Your task to perform on an android device: Google the capital of Brazil Image 0: 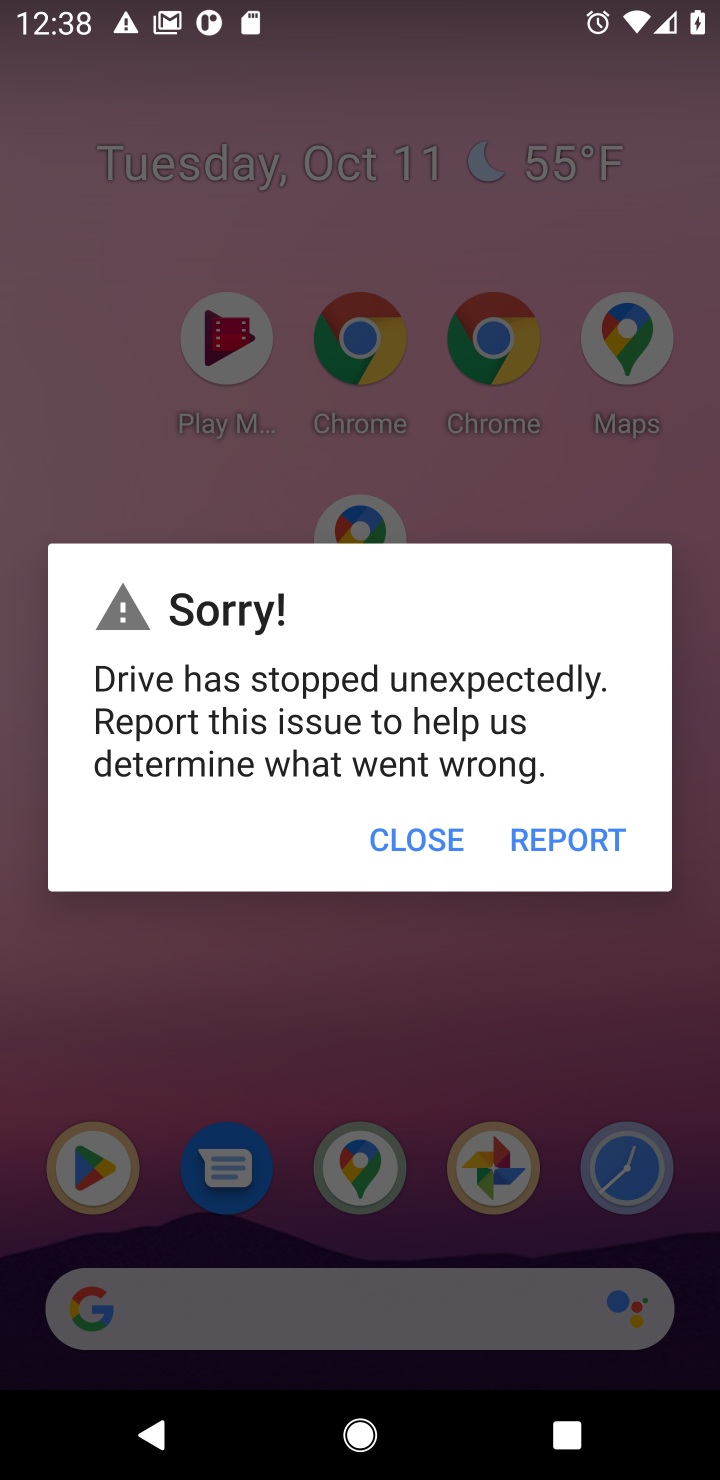
Step 0: press home button
Your task to perform on an android device: Google the capital of Brazil Image 1: 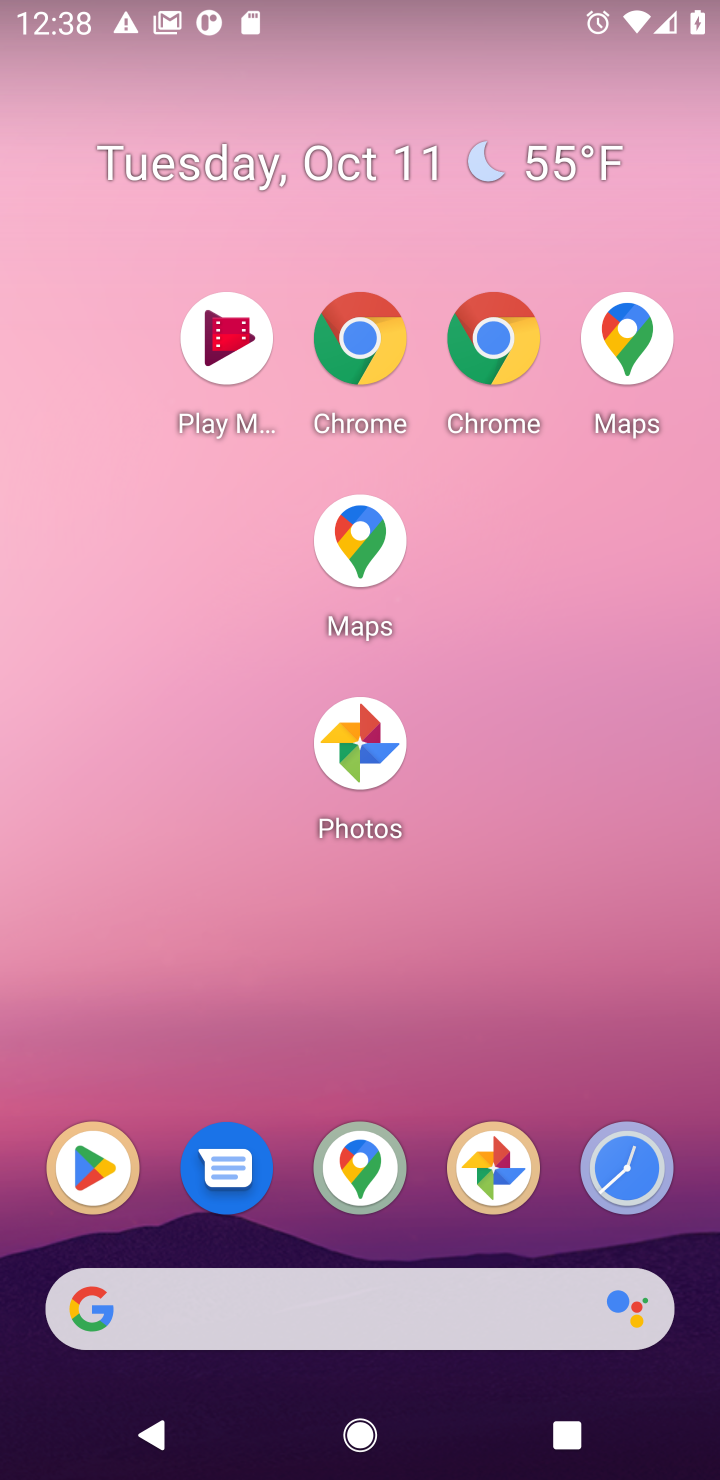
Step 1: drag from (470, 718) to (457, 154)
Your task to perform on an android device: Google the capital of Brazil Image 2: 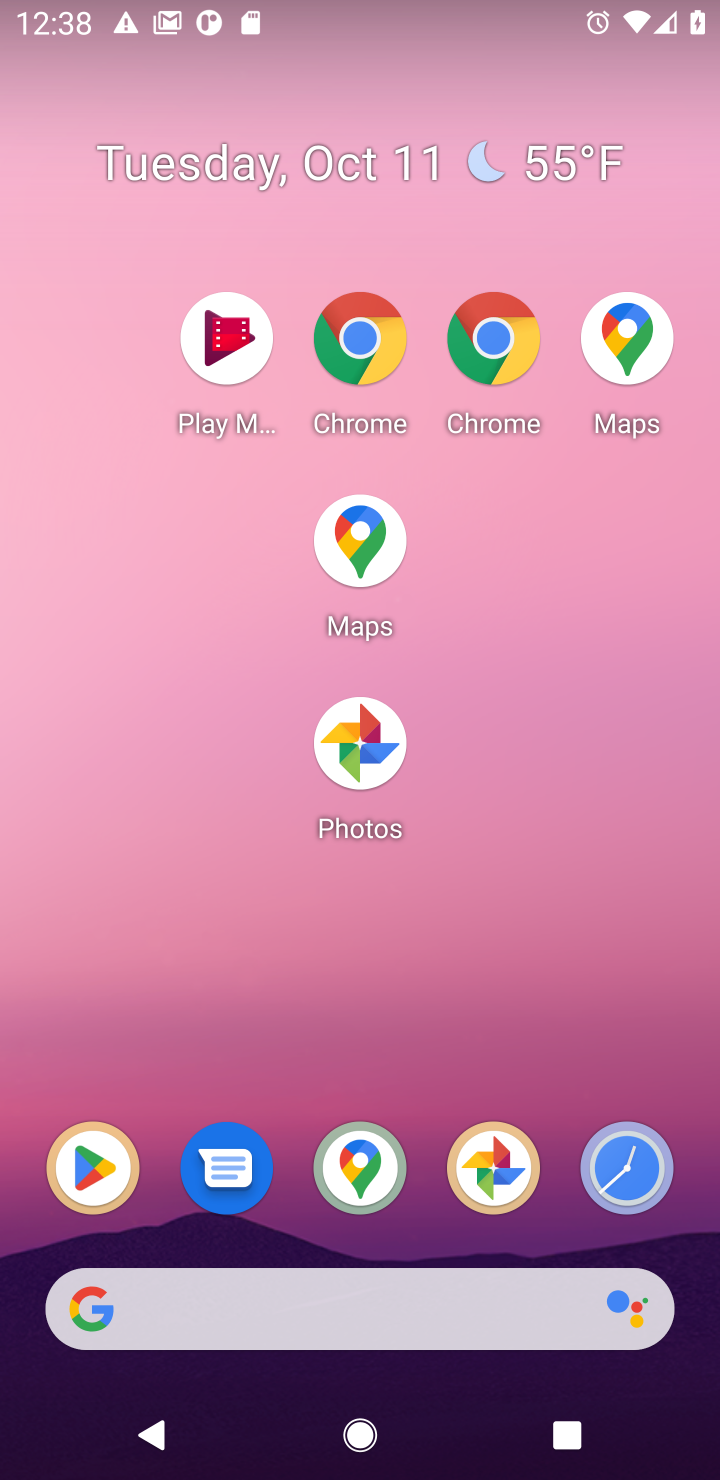
Step 2: drag from (397, 710) to (419, 80)
Your task to perform on an android device: Google the capital of Brazil Image 3: 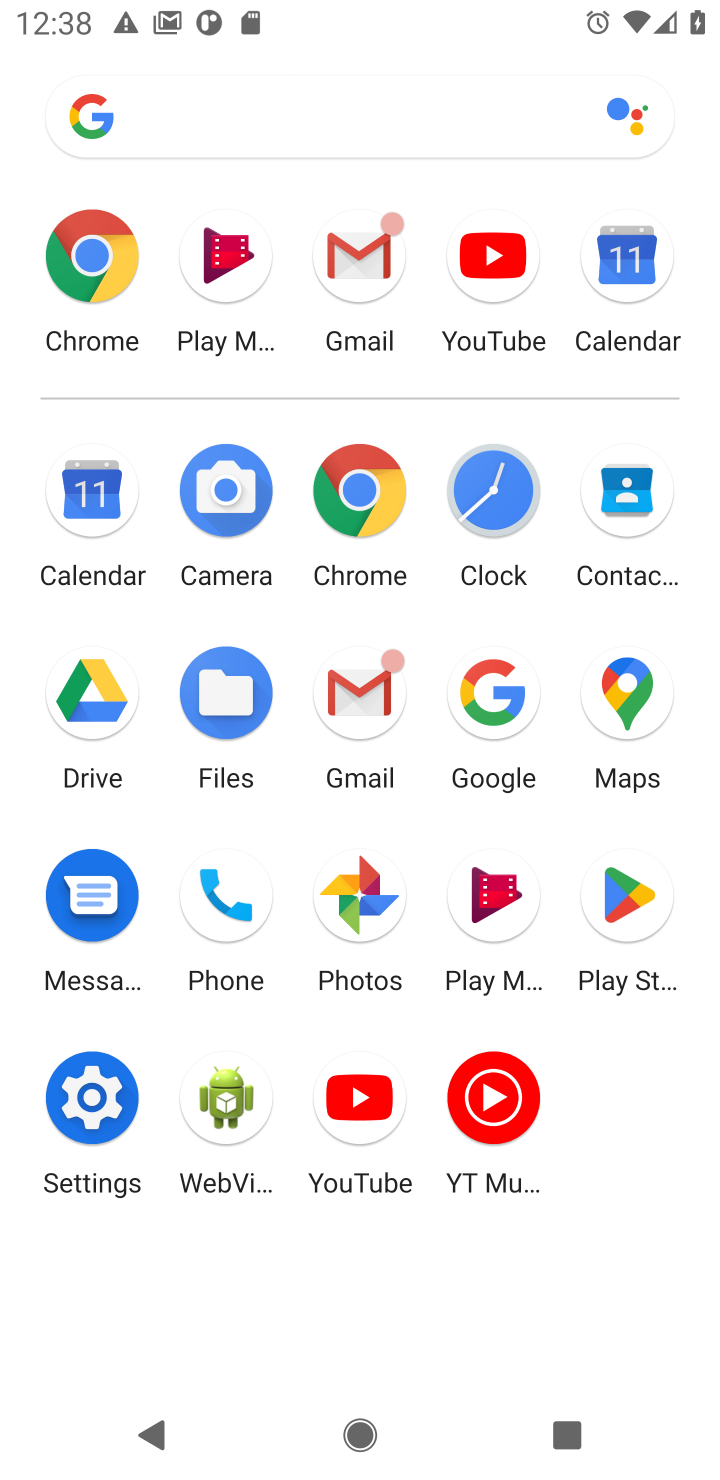
Step 3: click (476, 712)
Your task to perform on an android device: Google the capital of Brazil Image 4: 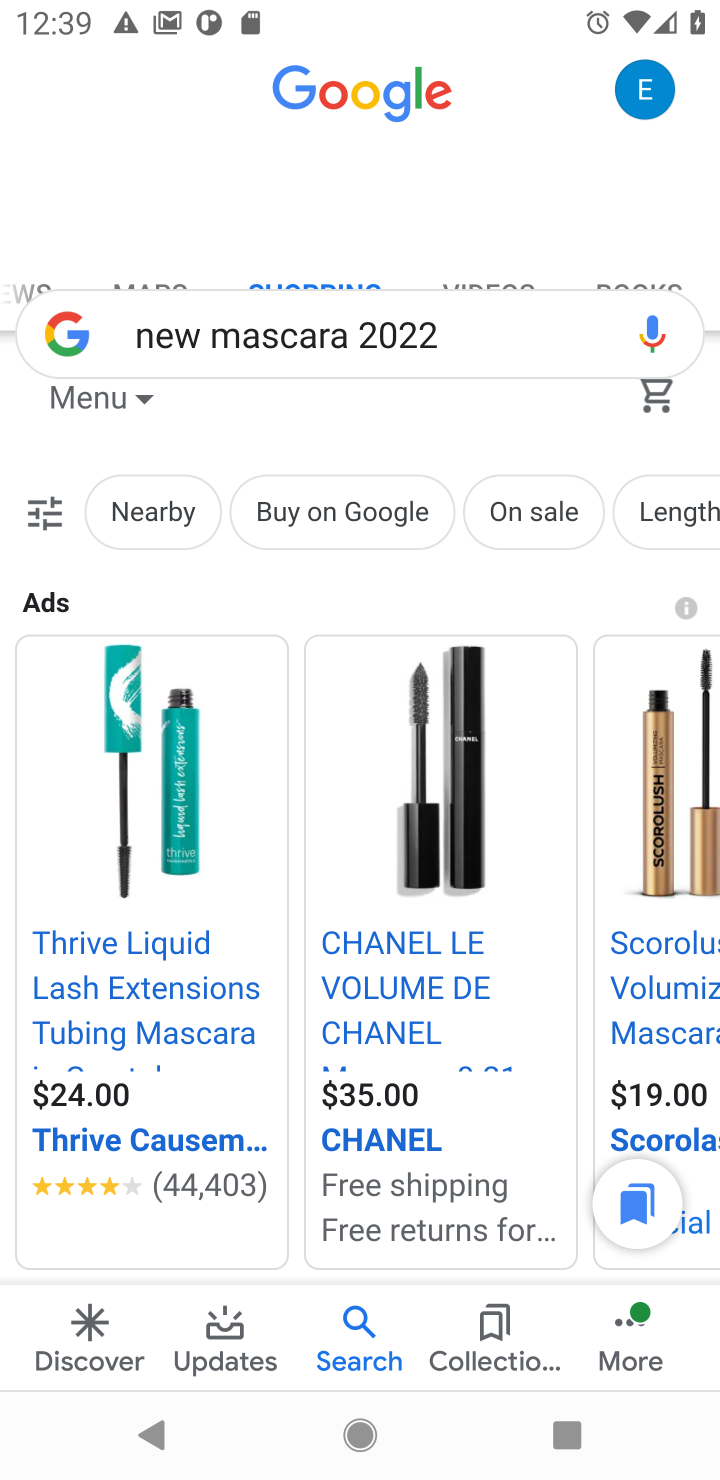
Step 4: click (495, 331)
Your task to perform on an android device: Google the capital of Brazil Image 5: 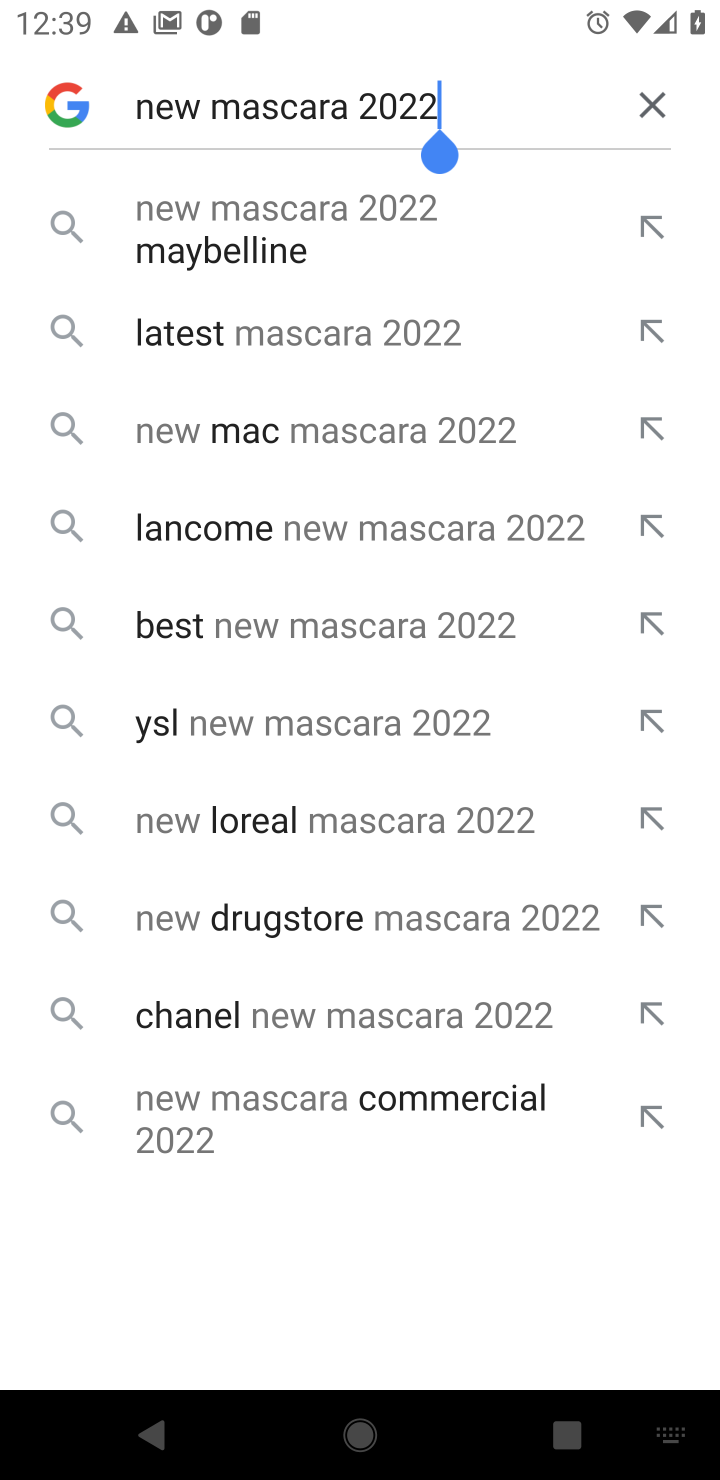
Step 5: click (653, 104)
Your task to perform on an android device: Google the capital of Brazil Image 6: 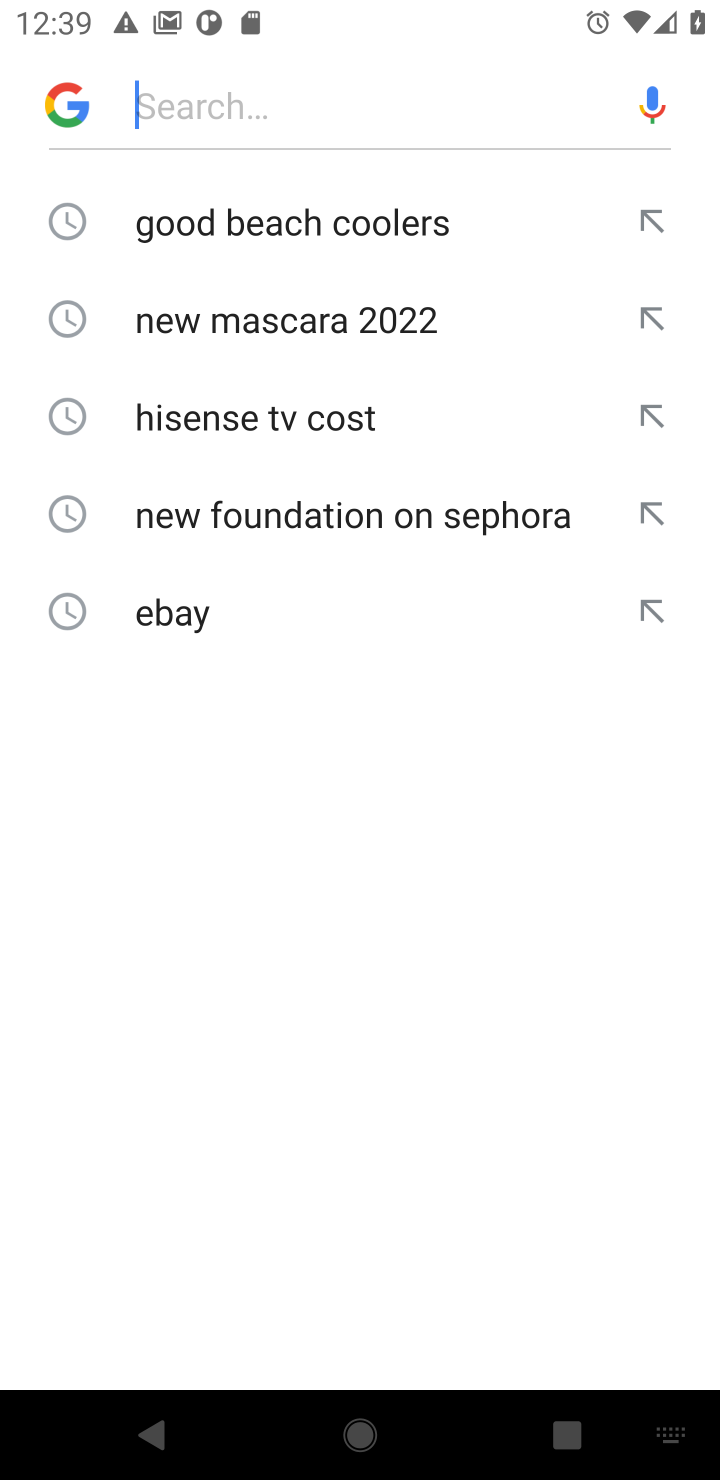
Step 6: type "capital of Brazil"
Your task to perform on an android device: Google the capital of Brazil Image 7: 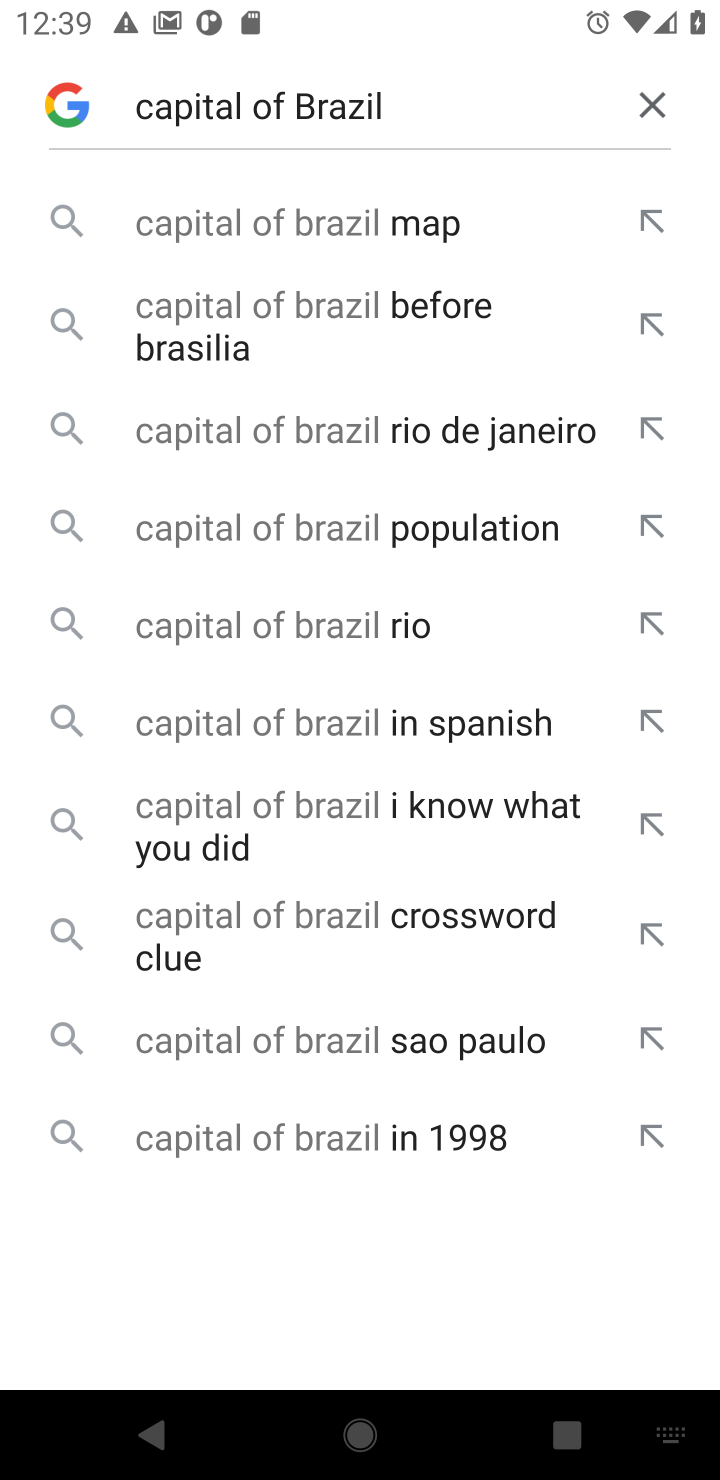
Step 7: click (467, 631)
Your task to perform on an android device: Google the capital of Brazil Image 8: 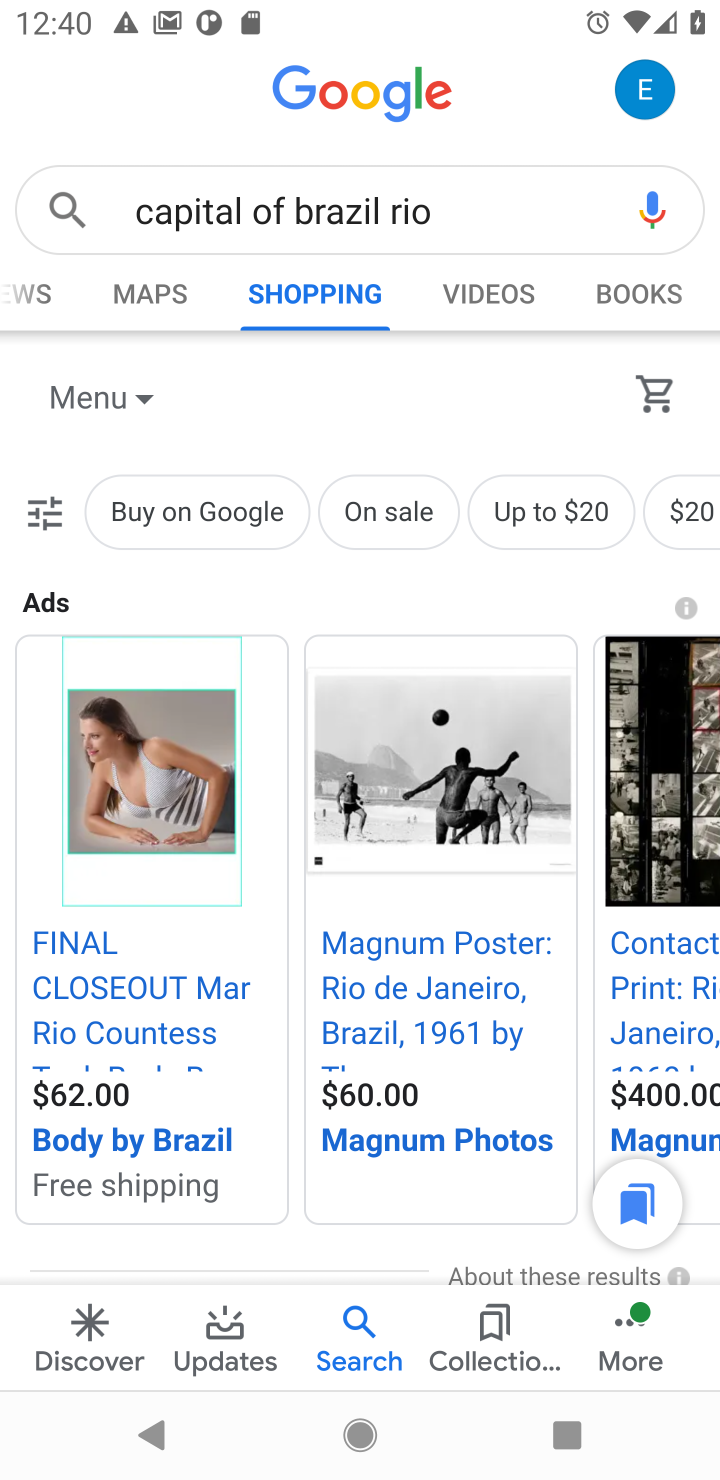
Step 8: drag from (36, 299) to (518, 320)
Your task to perform on an android device: Google the capital of Brazil Image 9: 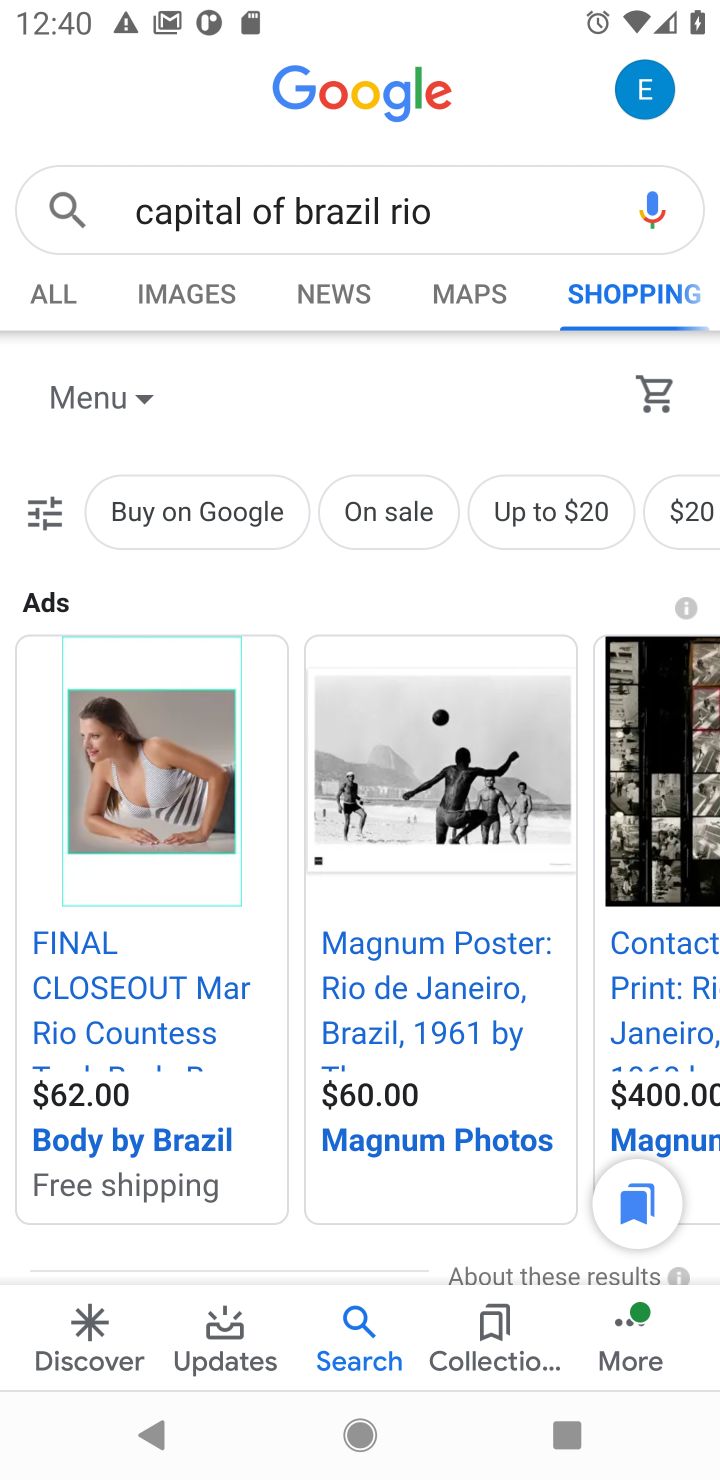
Step 9: click (54, 299)
Your task to perform on an android device: Google the capital of Brazil Image 10: 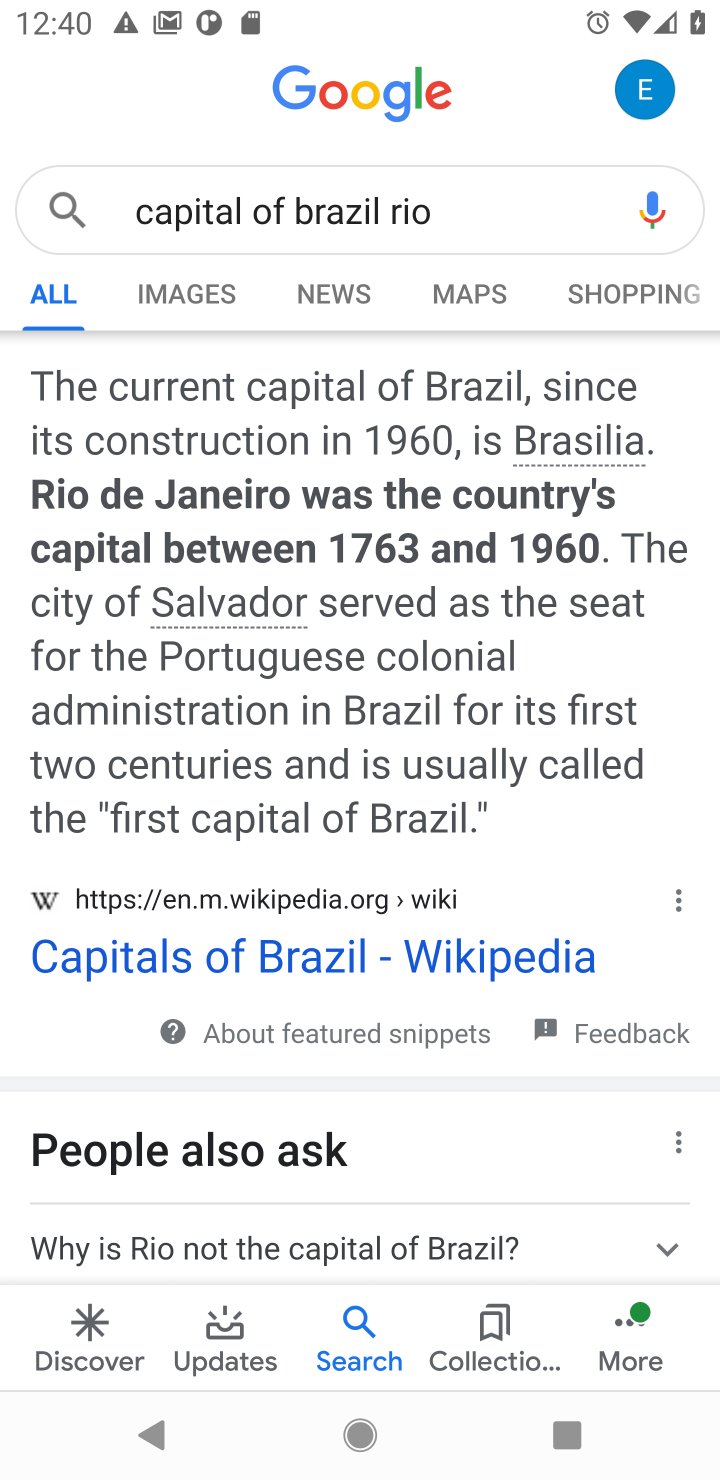
Step 10: task complete